Your task to perform on an android device: add a contact in the contacts app Image 0: 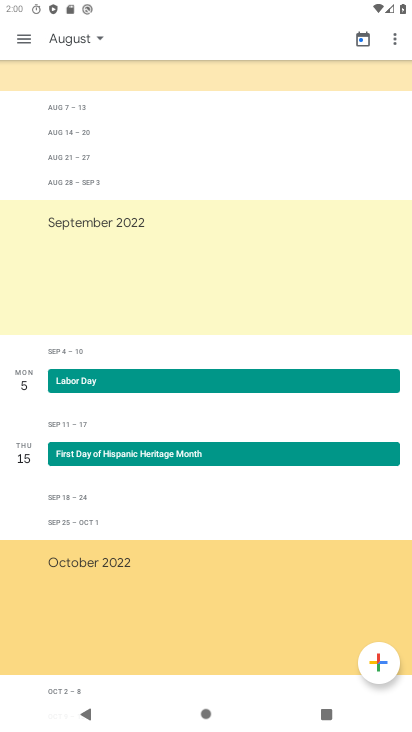
Step 0: press home button
Your task to perform on an android device: add a contact in the contacts app Image 1: 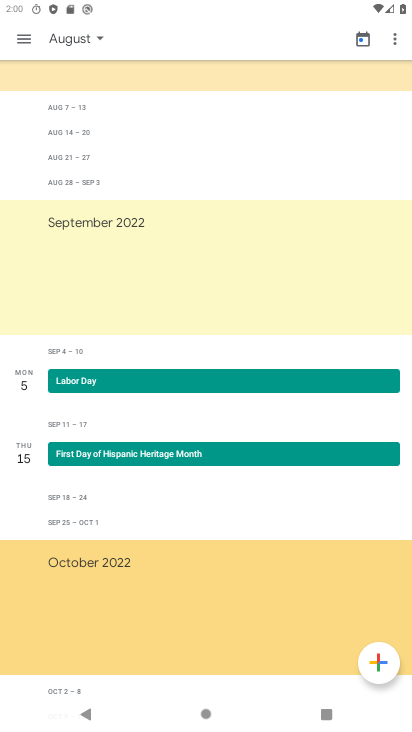
Step 1: drag from (239, 604) to (303, 133)
Your task to perform on an android device: add a contact in the contacts app Image 2: 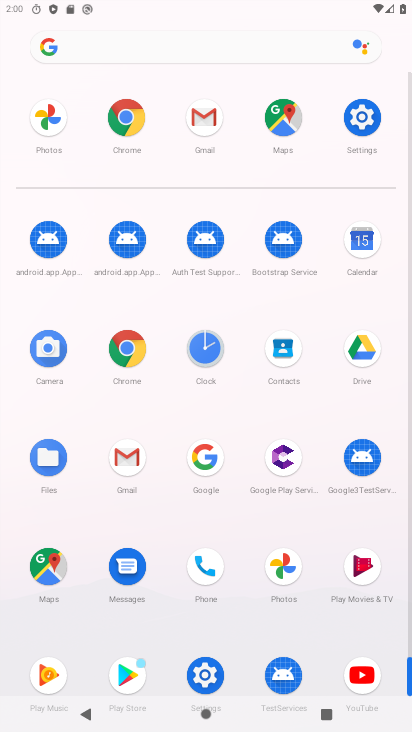
Step 2: click (286, 334)
Your task to perform on an android device: add a contact in the contacts app Image 3: 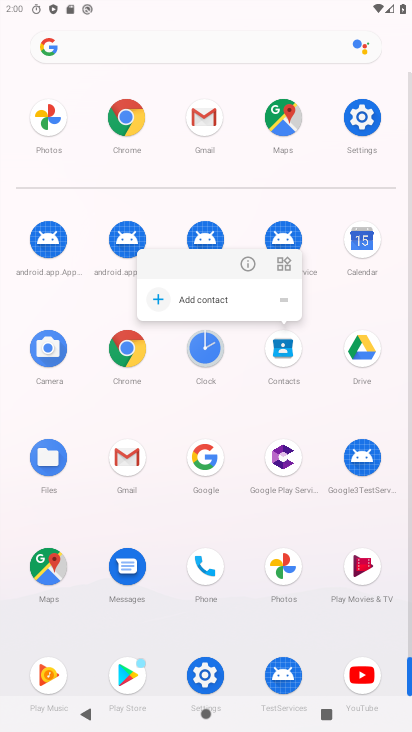
Step 3: click (243, 258)
Your task to perform on an android device: add a contact in the contacts app Image 4: 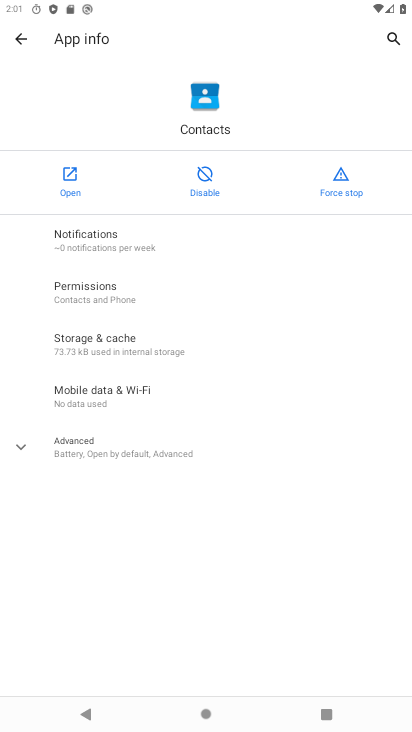
Step 4: drag from (216, 658) to (187, 358)
Your task to perform on an android device: add a contact in the contacts app Image 5: 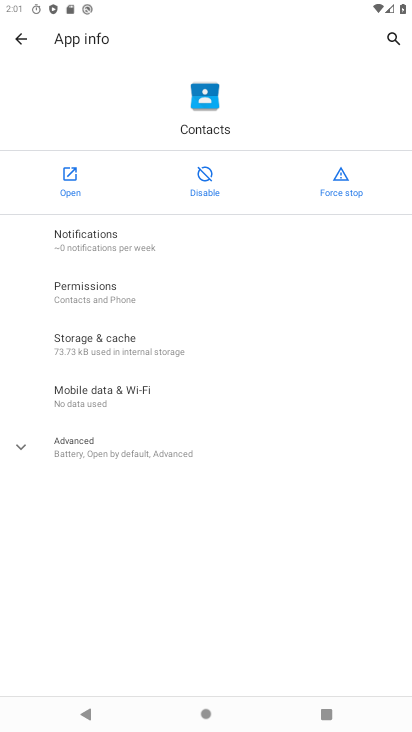
Step 5: click (80, 197)
Your task to perform on an android device: add a contact in the contacts app Image 6: 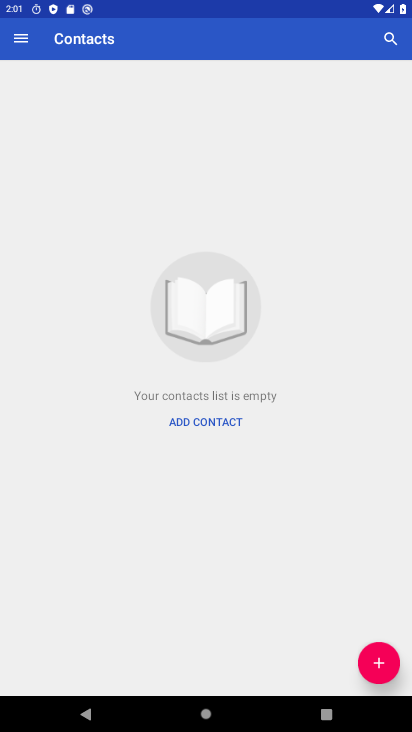
Step 6: click (394, 674)
Your task to perform on an android device: add a contact in the contacts app Image 7: 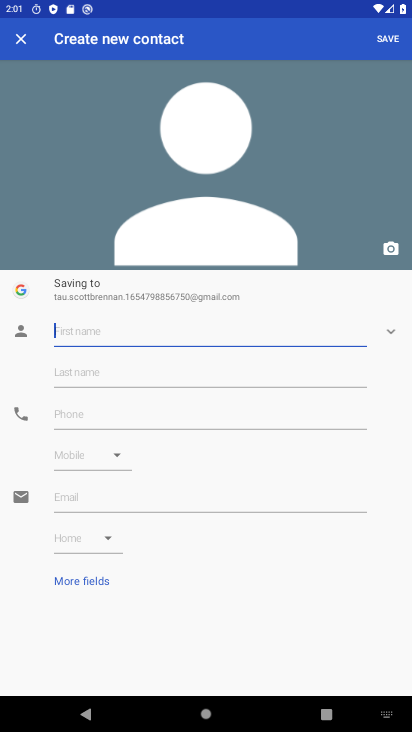
Step 7: click (128, 333)
Your task to perform on an android device: add a contact in the contacts app Image 8: 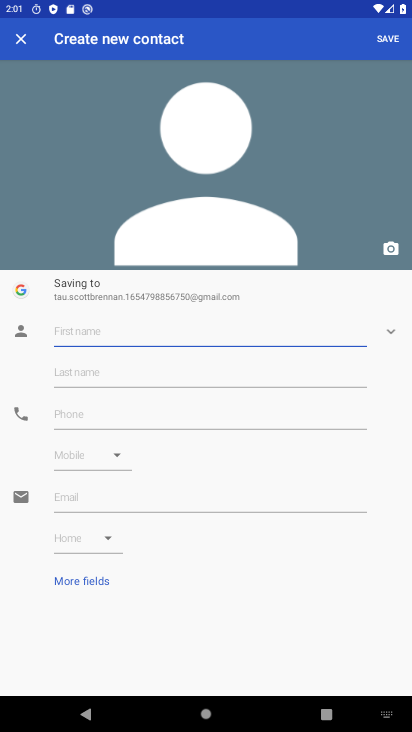
Step 8: type "ska,xas"
Your task to perform on an android device: add a contact in the contacts app Image 9: 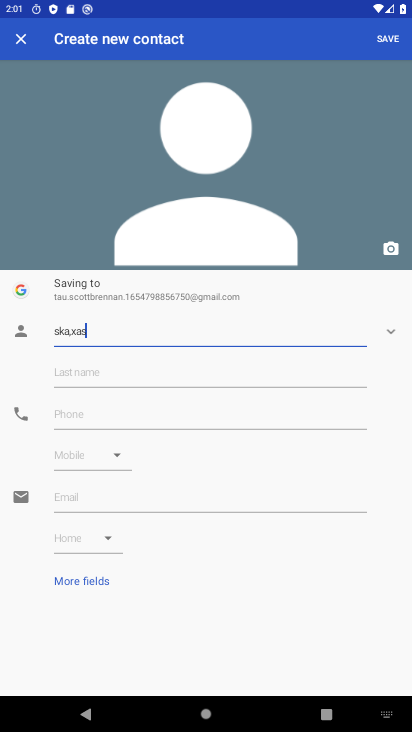
Step 9: click (384, 45)
Your task to perform on an android device: add a contact in the contacts app Image 10: 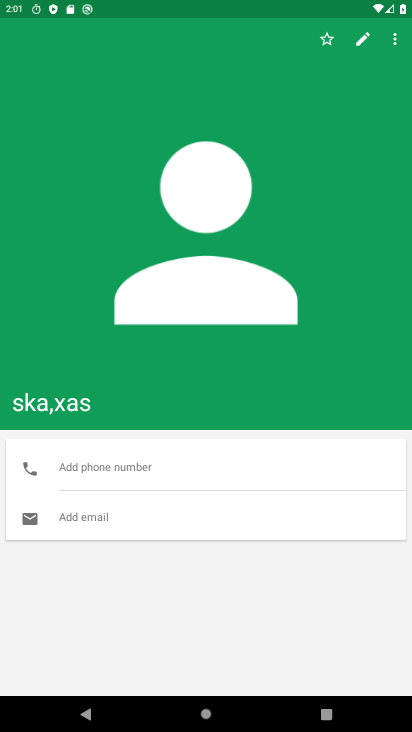
Step 10: task complete